Your task to perform on an android device: Open Google Chrome Image 0: 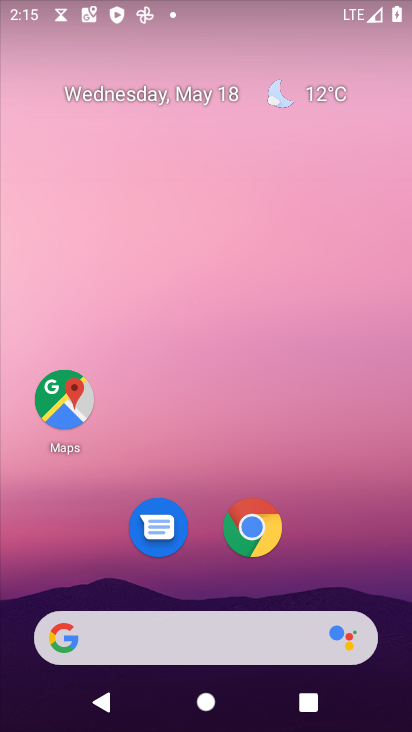
Step 0: click (258, 530)
Your task to perform on an android device: Open Google Chrome Image 1: 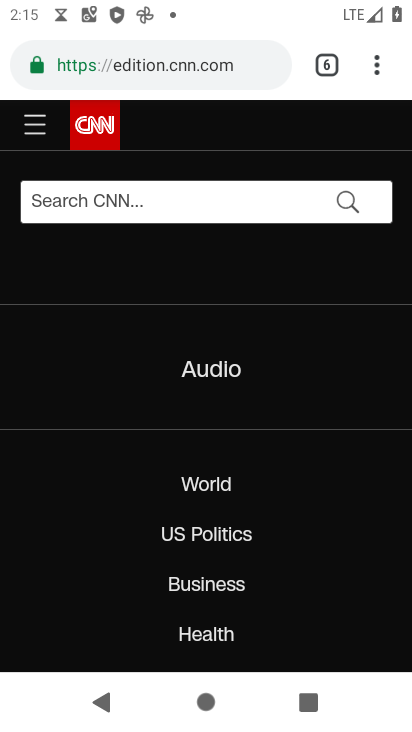
Step 1: task complete